Your task to perform on an android device: Search for the best 4k TVs Image 0: 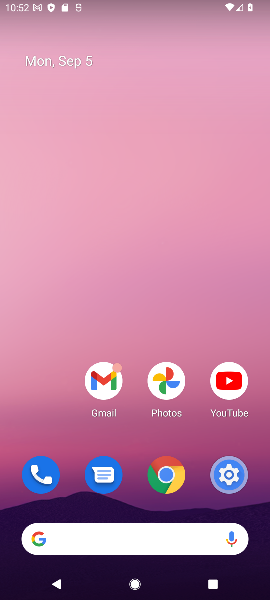
Step 0: click (130, 540)
Your task to perform on an android device: Search for the best 4k TVs Image 1: 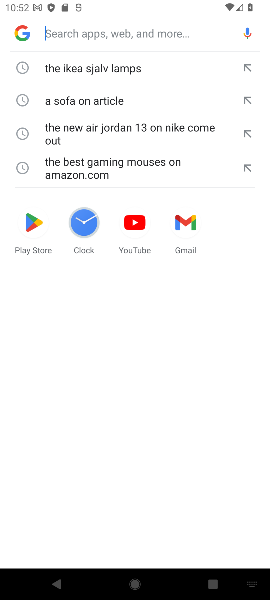
Step 1: type "the best 4k TVs"
Your task to perform on an android device: Search for the best 4k TVs Image 2: 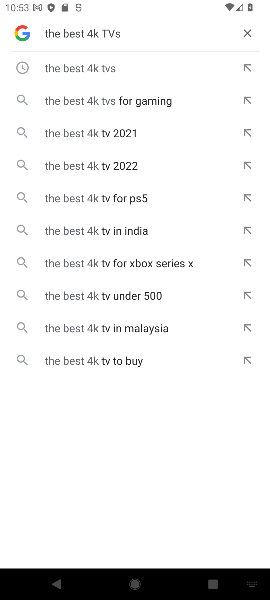
Step 2: click (67, 70)
Your task to perform on an android device: Search for the best 4k TVs Image 3: 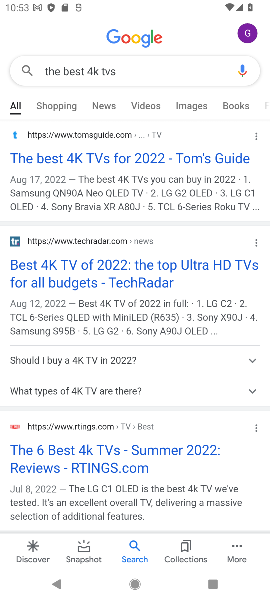
Step 3: task complete